Your task to perform on an android device: Search for sushi restaurants on Maps Image 0: 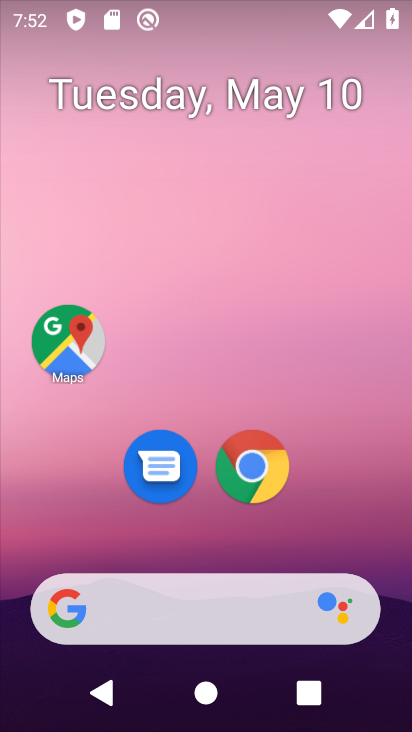
Step 0: drag from (336, 552) to (358, 62)
Your task to perform on an android device: Search for sushi restaurants on Maps Image 1: 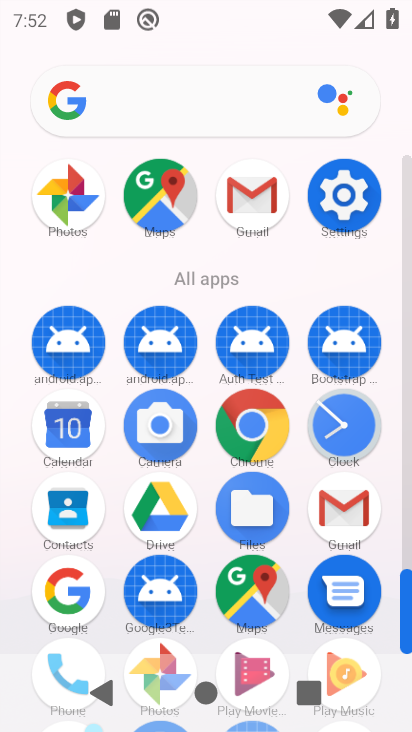
Step 1: click (264, 594)
Your task to perform on an android device: Search for sushi restaurants on Maps Image 2: 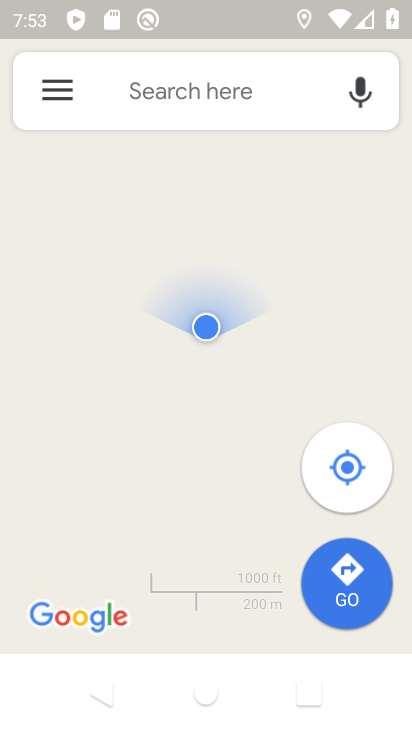
Step 2: click (165, 95)
Your task to perform on an android device: Search for sushi restaurants on Maps Image 3: 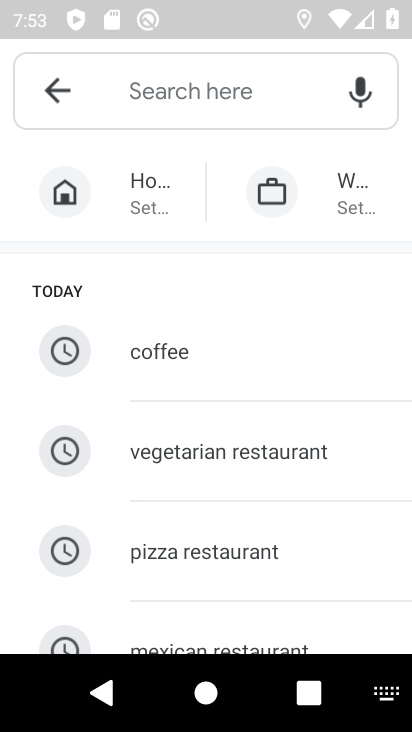
Step 3: type "sushi restaurants"
Your task to perform on an android device: Search for sushi restaurants on Maps Image 4: 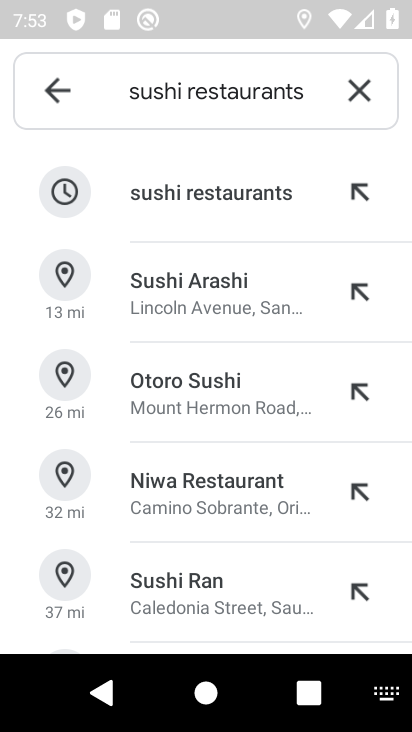
Step 4: click (267, 192)
Your task to perform on an android device: Search for sushi restaurants on Maps Image 5: 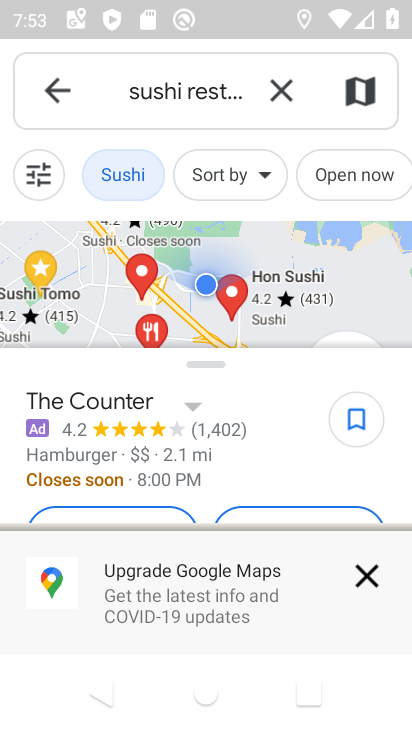
Step 5: task complete